Your task to perform on an android device: Toggle the flashlight Image 0: 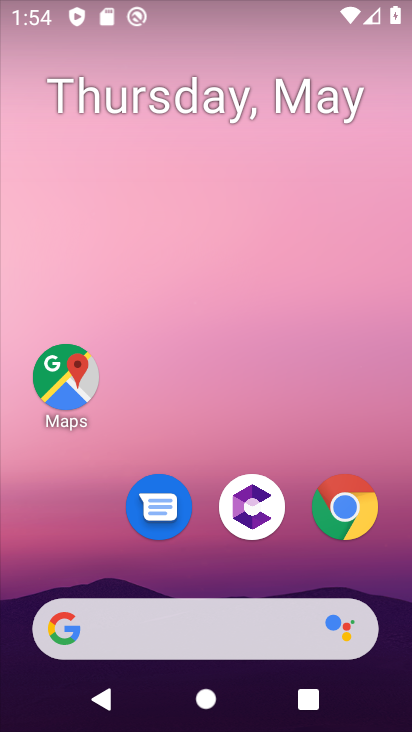
Step 0: drag from (211, 4) to (273, 303)
Your task to perform on an android device: Toggle the flashlight Image 1: 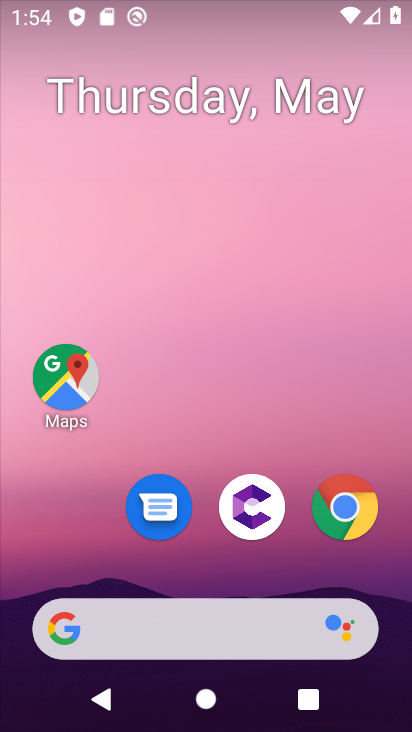
Step 1: task complete